Your task to perform on an android device: open app "Reddit" (install if not already installed) and go to login screen Image 0: 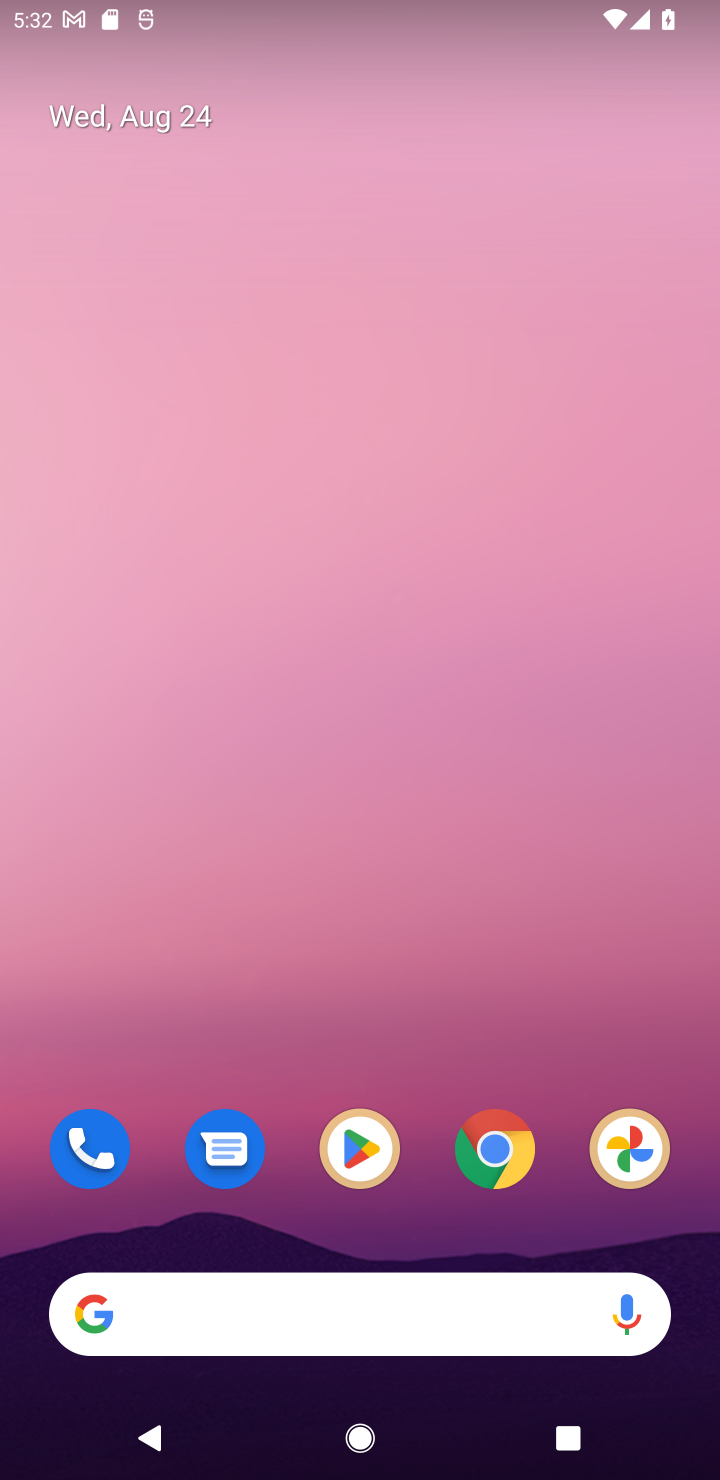
Step 0: press home button
Your task to perform on an android device: open app "Reddit" (install if not already installed) and go to login screen Image 1: 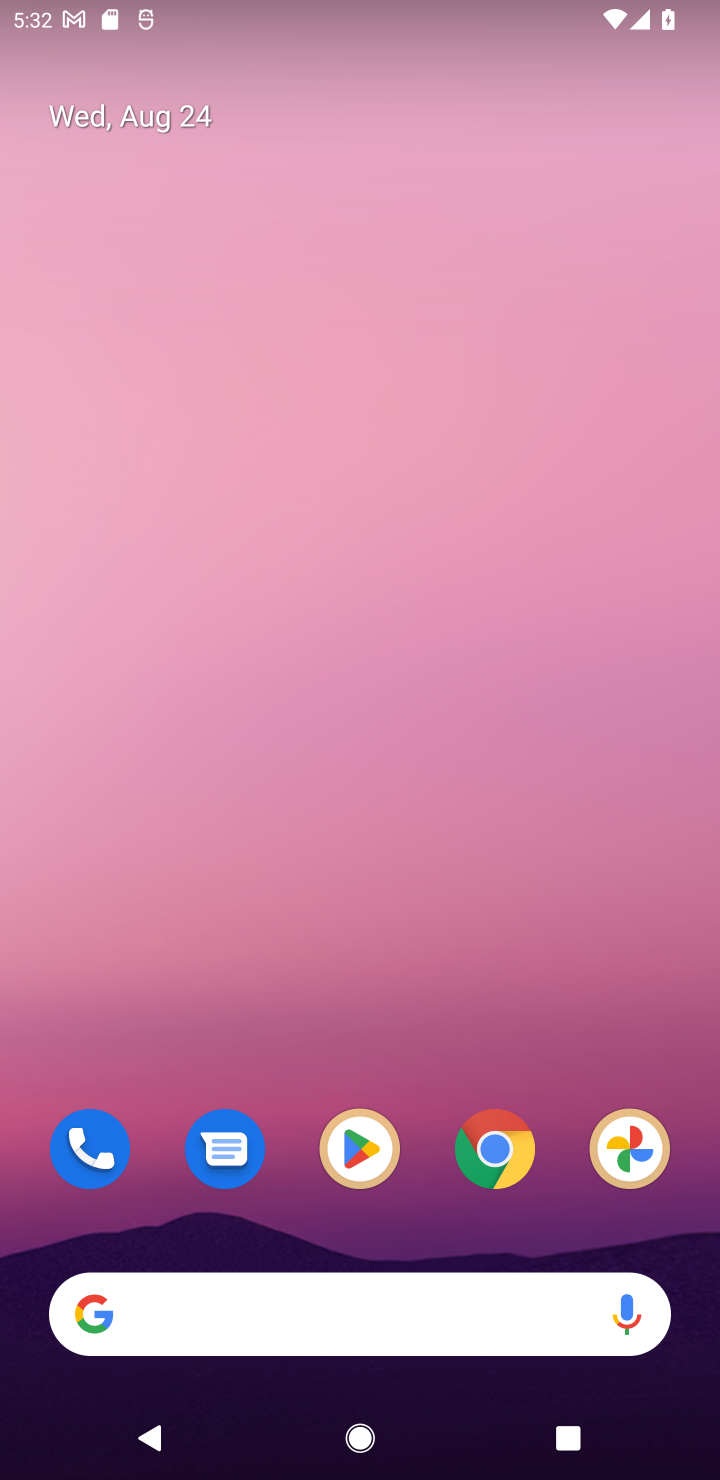
Step 1: click (361, 1158)
Your task to perform on an android device: open app "Reddit" (install if not already installed) and go to login screen Image 2: 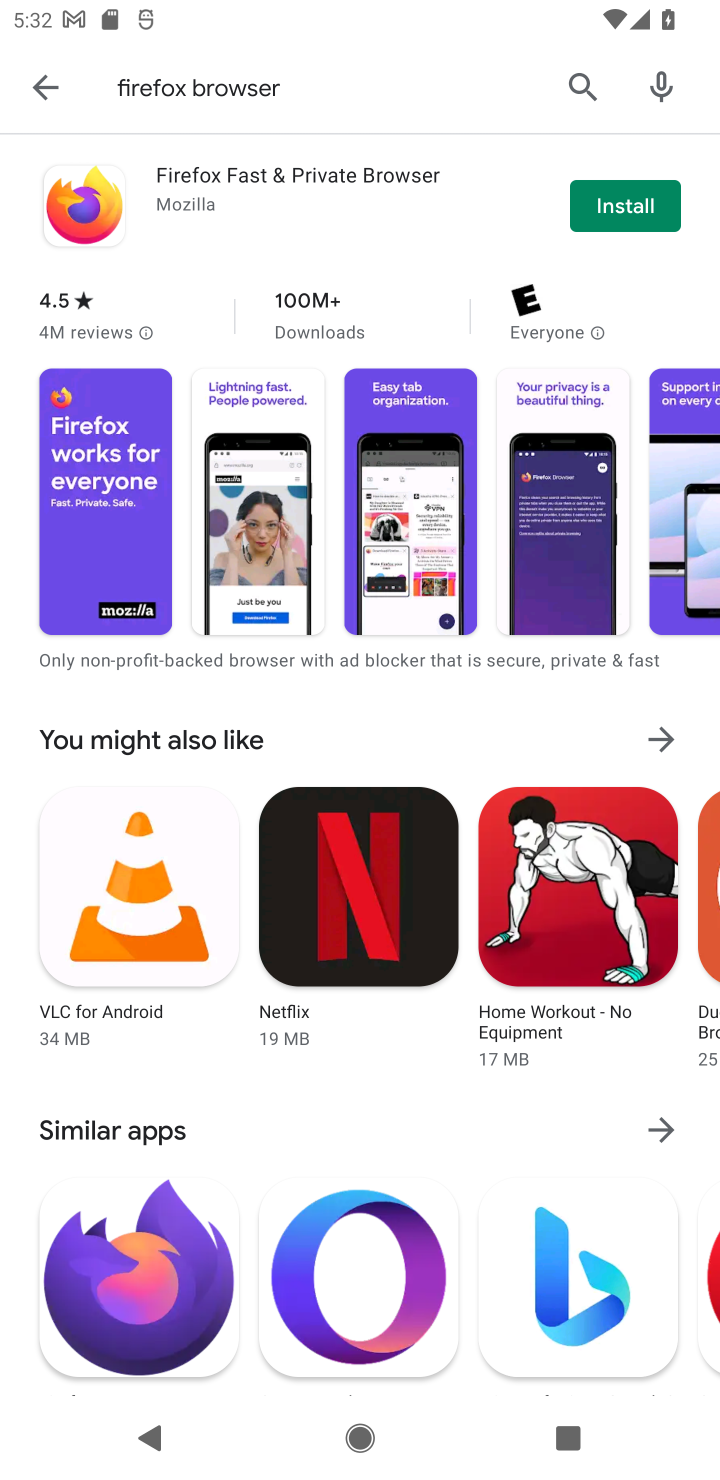
Step 2: click (575, 79)
Your task to perform on an android device: open app "Reddit" (install if not already installed) and go to login screen Image 3: 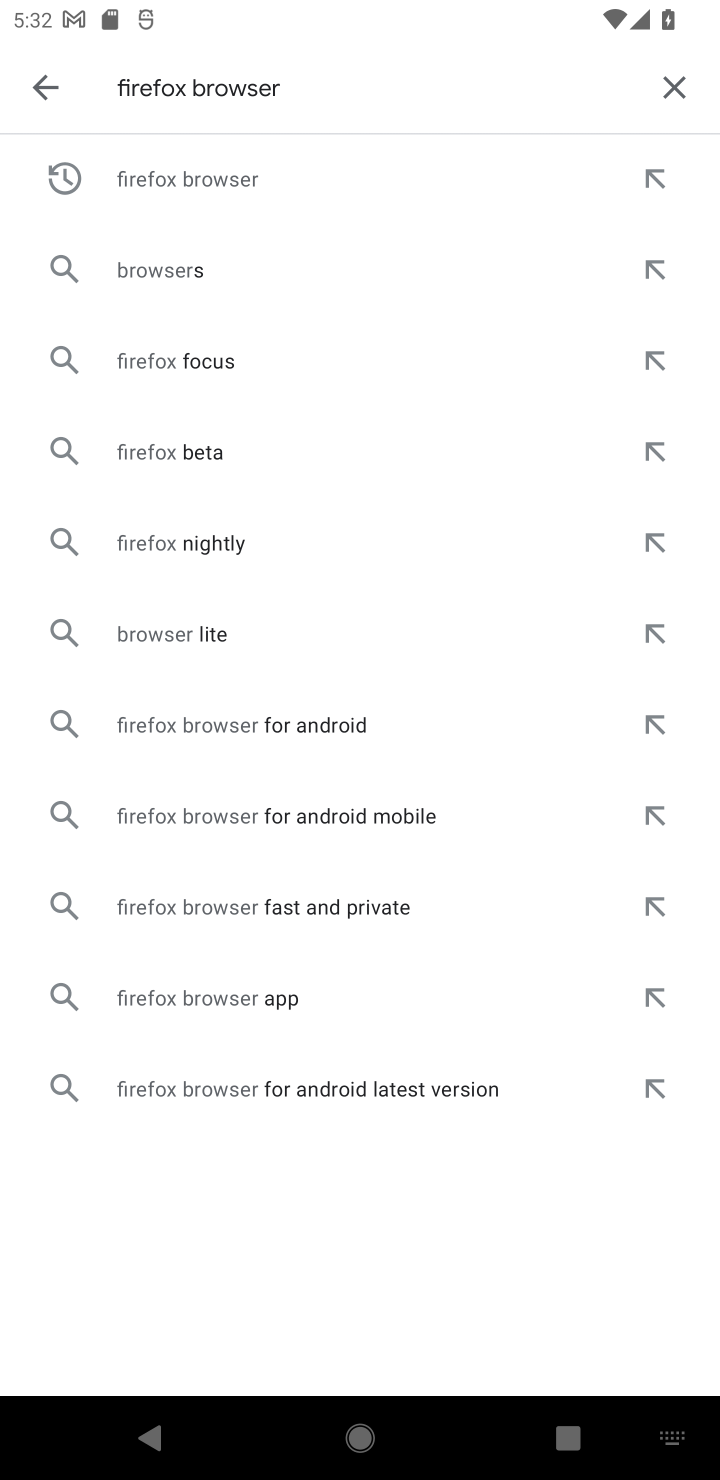
Step 3: click (676, 68)
Your task to perform on an android device: open app "Reddit" (install if not already installed) and go to login screen Image 4: 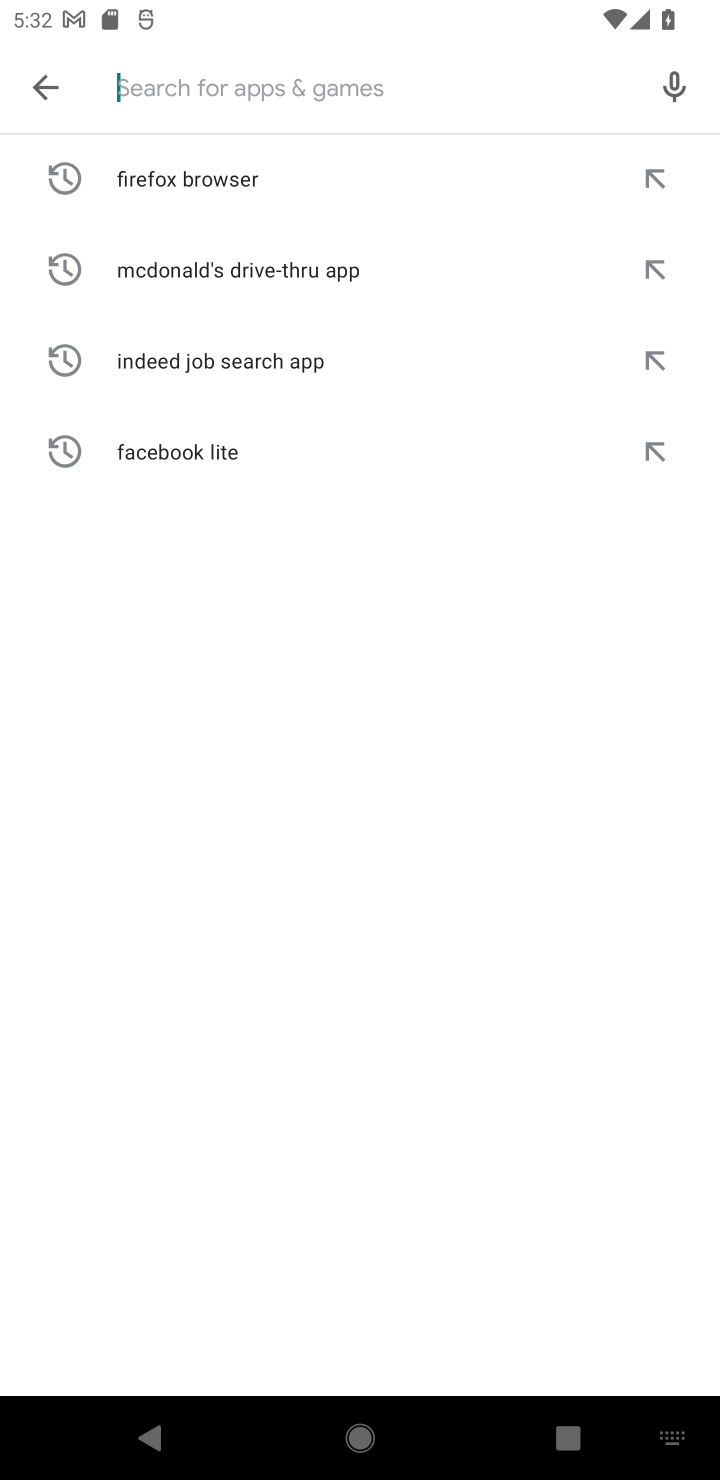
Step 4: type "Reddit"
Your task to perform on an android device: open app "Reddit" (install if not already installed) and go to login screen Image 5: 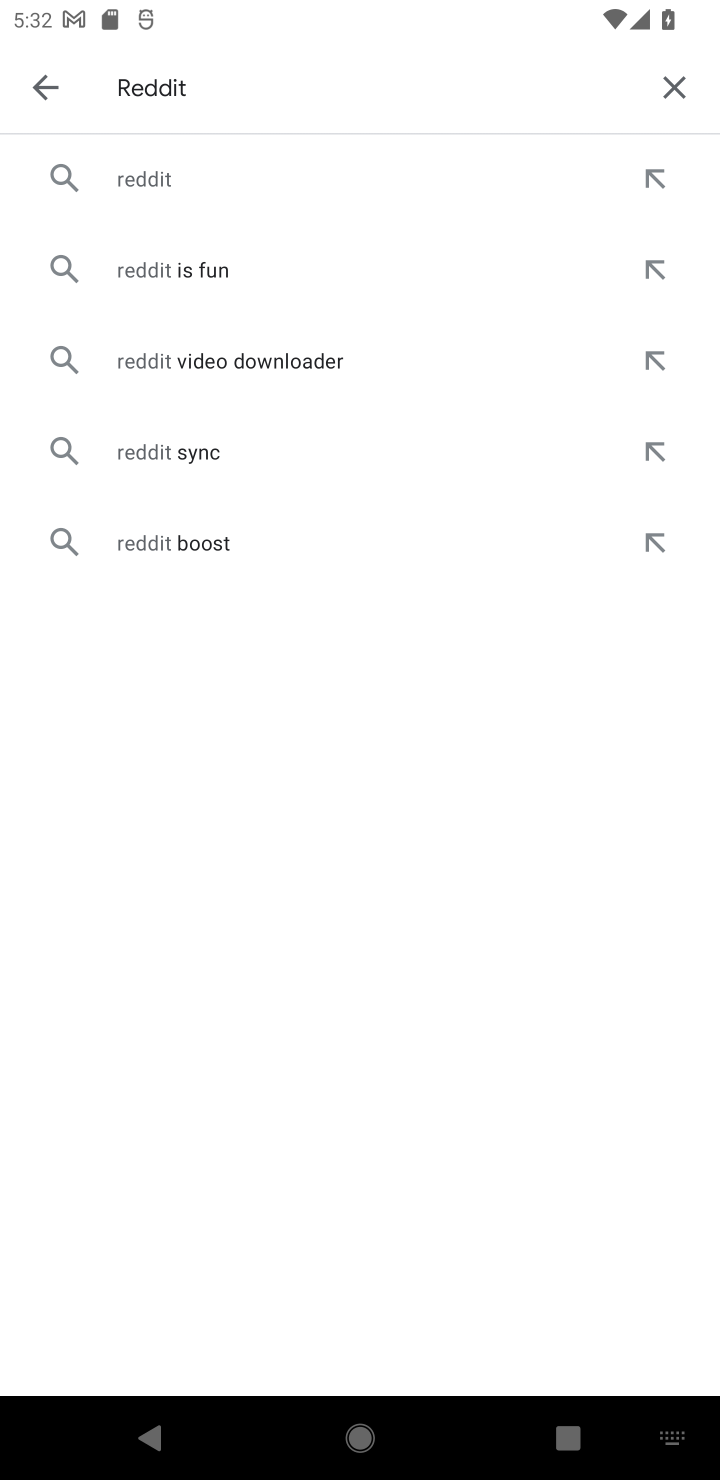
Step 5: click (151, 176)
Your task to perform on an android device: open app "Reddit" (install if not already installed) and go to login screen Image 6: 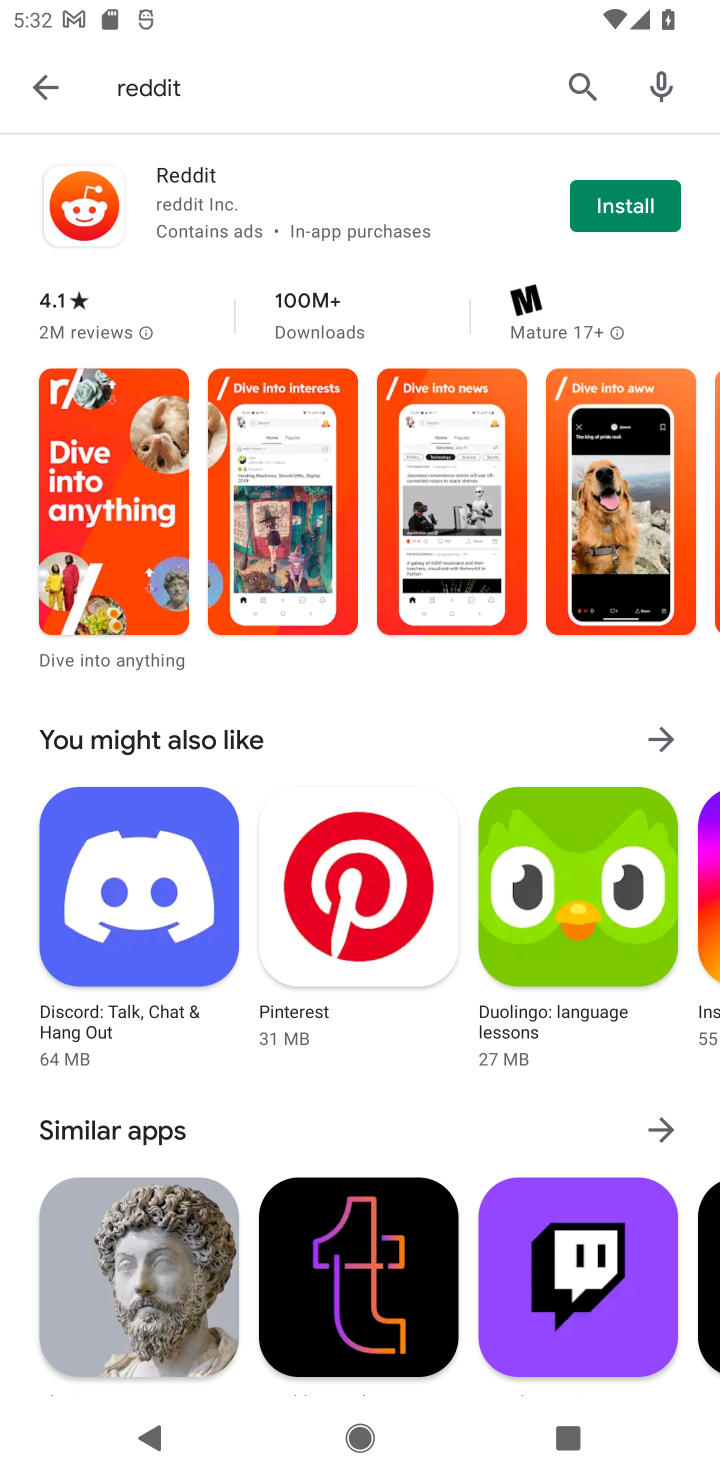
Step 6: click (622, 200)
Your task to perform on an android device: open app "Reddit" (install if not already installed) and go to login screen Image 7: 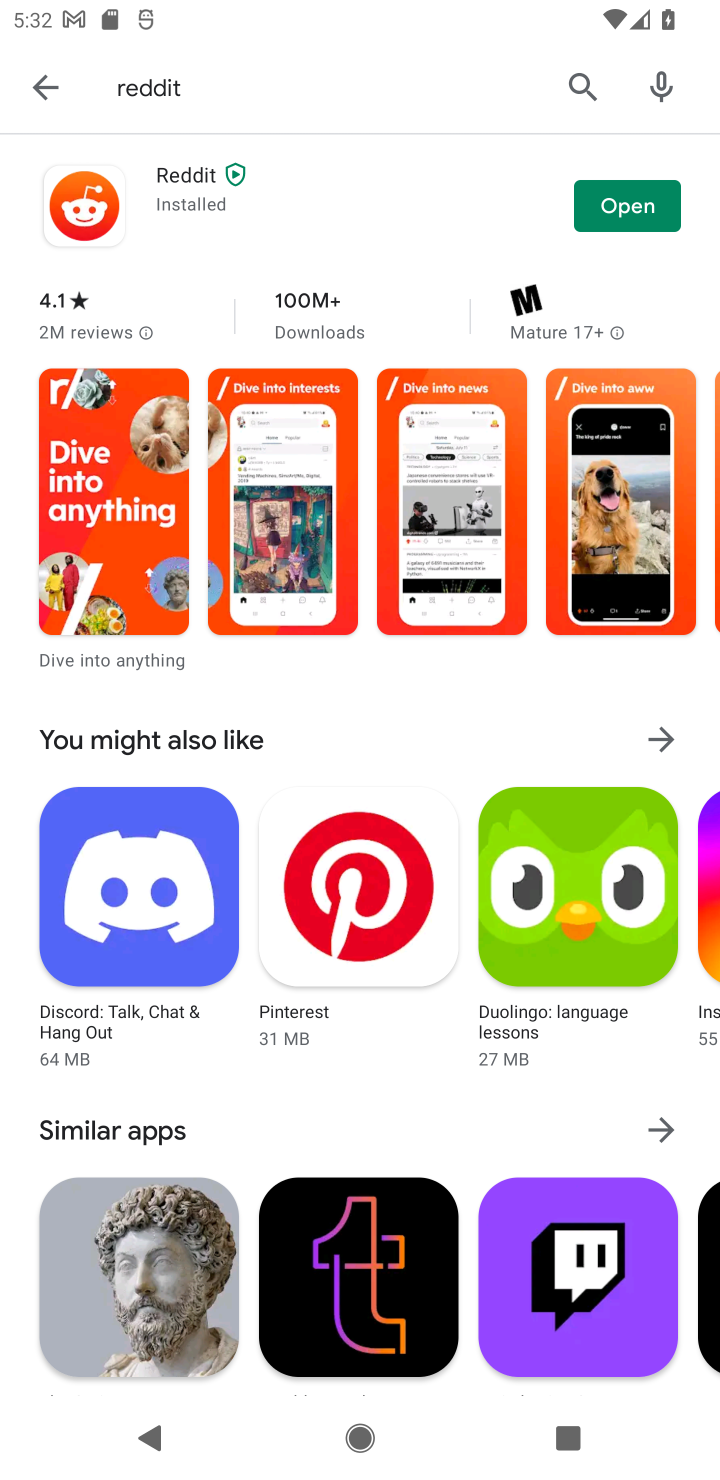
Step 7: click (622, 198)
Your task to perform on an android device: open app "Reddit" (install if not already installed) and go to login screen Image 8: 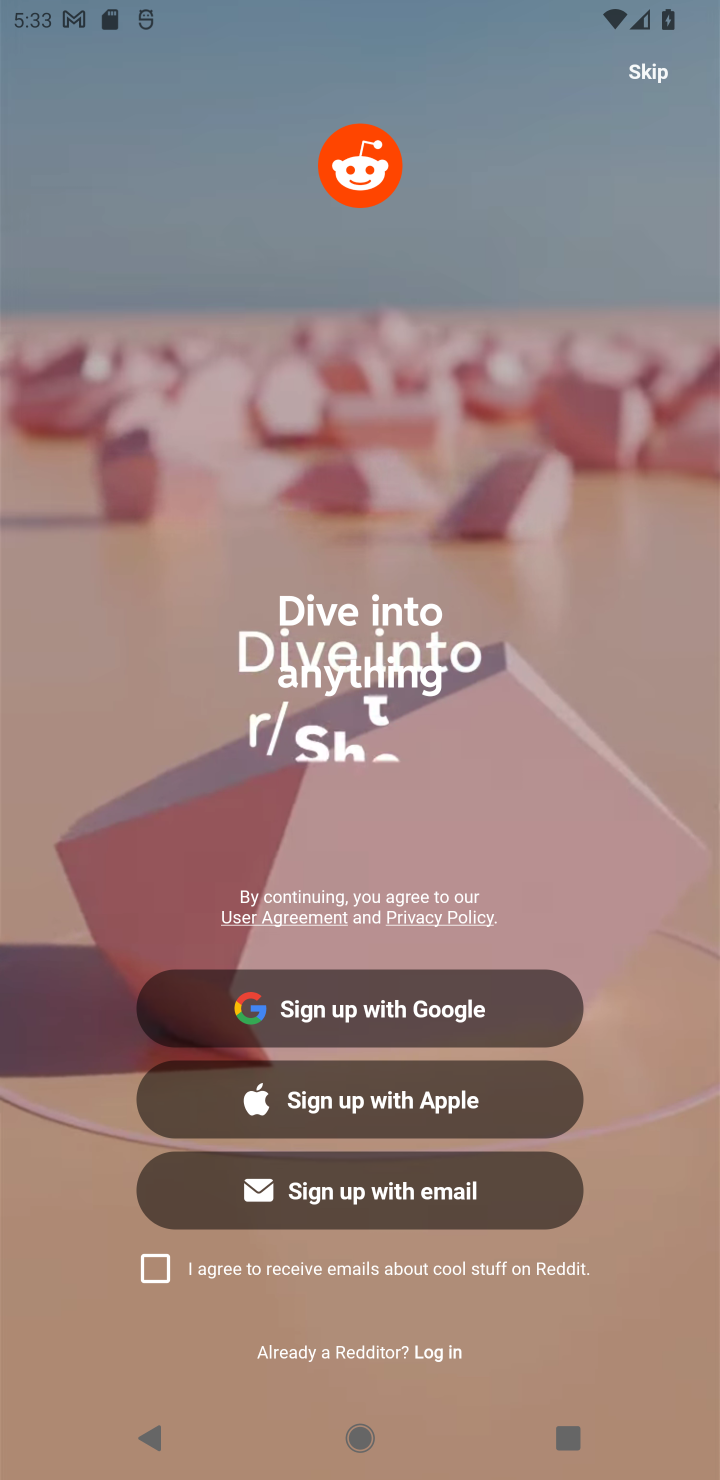
Step 8: task complete